Your task to perform on an android device: open a bookmark in the chrome app Image 0: 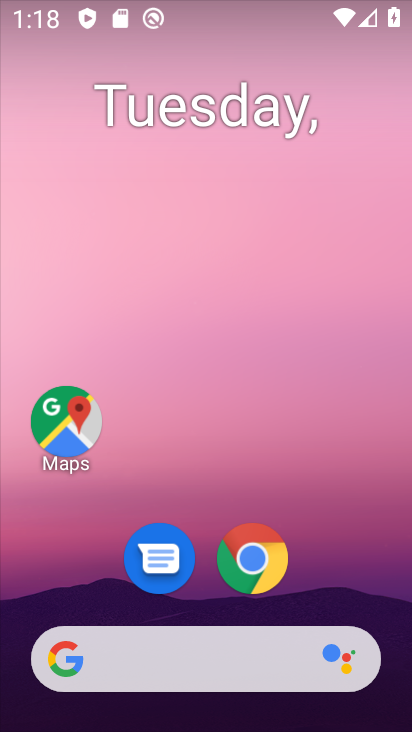
Step 0: click (259, 554)
Your task to perform on an android device: open a bookmark in the chrome app Image 1: 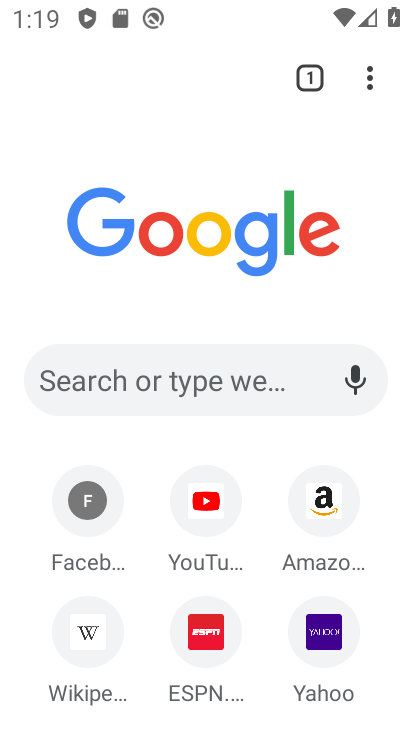
Step 1: task complete